Your task to perform on an android device: Go to calendar. Show me events next week Image 0: 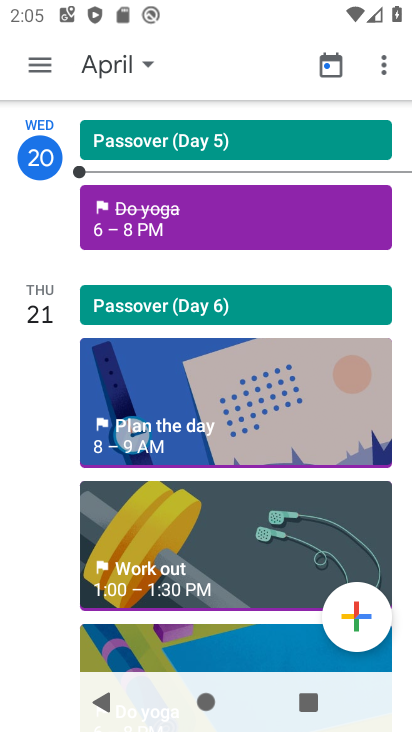
Step 0: press home button
Your task to perform on an android device: Go to calendar. Show me events next week Image 1: 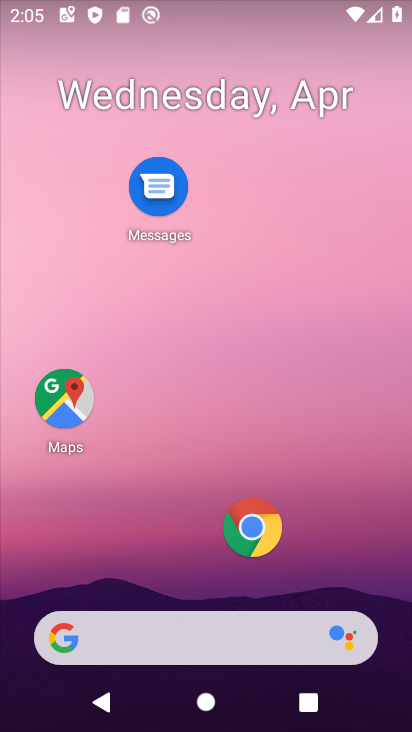
Step 1: drag from (160, 548) to (131, 146)
Your task to perform on an android device: Go to calendar. Show me events next week Image 2: 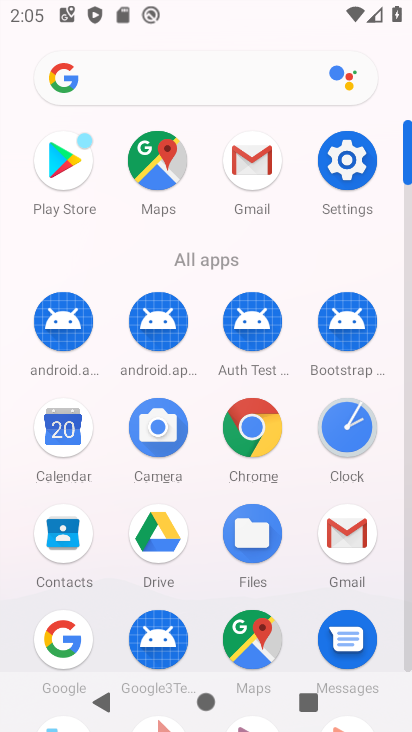
Step 2: click (58, 447)
Your task to perform on an android device: Go to calendar. Show me events next week Image 3: 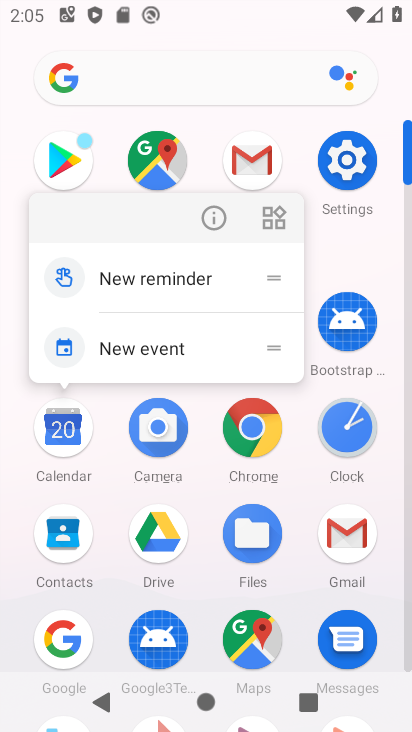
Step 3: click (60, 435)
Your task to perform on an android device: Go to calendar. Show me events next week Image 4: 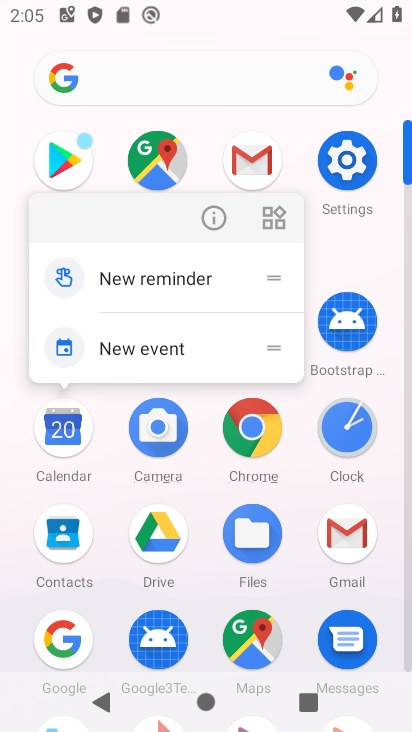
Step 4: click (64, 432)
Your task to perform on an android device: Go to calendar. Show me events next week Image 5: 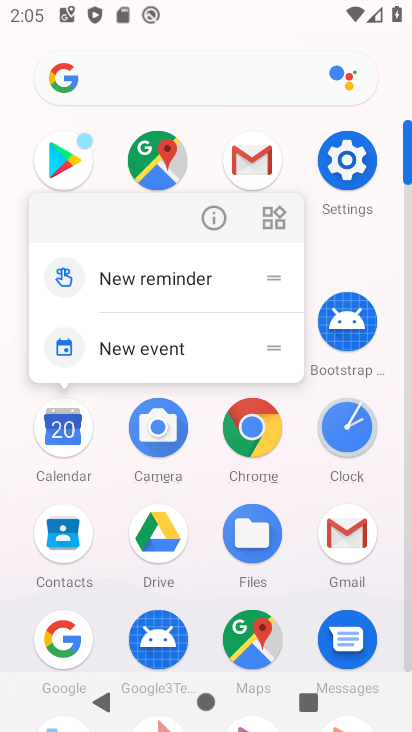
Step 5: click (65, 429)
Your task to perform on an android device: Go to calendar. Show me events next week Image 6: 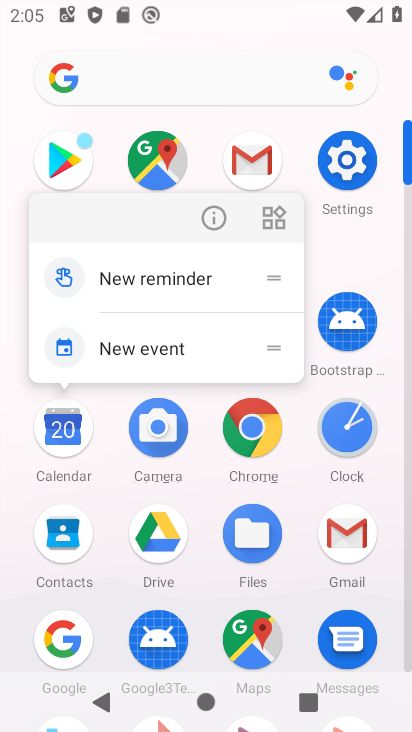
Step 6: click (204, 215)
Your task to perform on an android device: Go to calendar. Show me events next week Image 7: 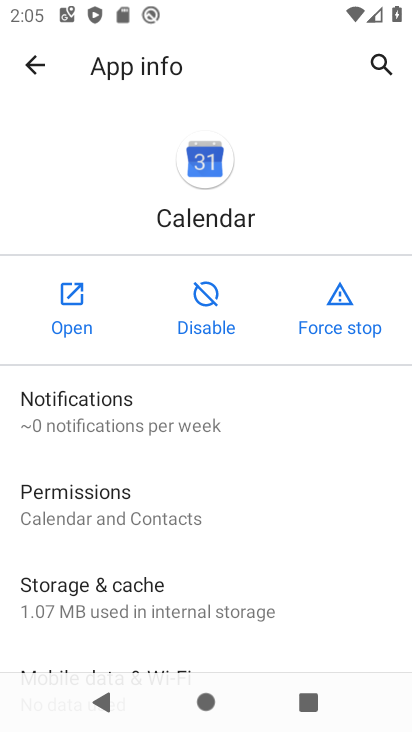
Step 7: click (78, 315)
Your task to perform on an android device: Go to calendar. Show me events next week Image 8: 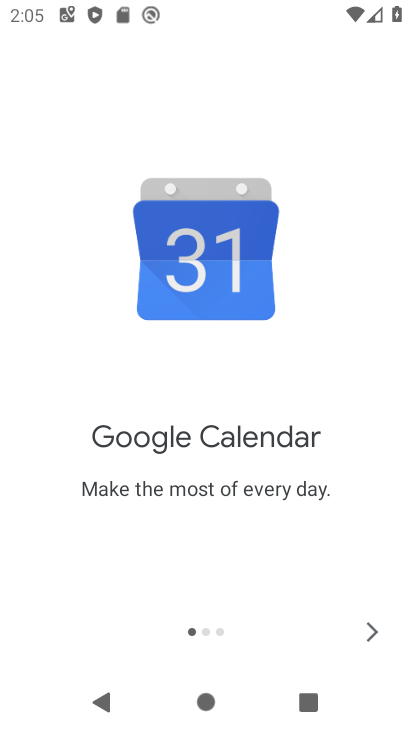
Step 8: click (367, 623)
Your task to perform on an android device: Go to calendar. Show me events next week Image 9: 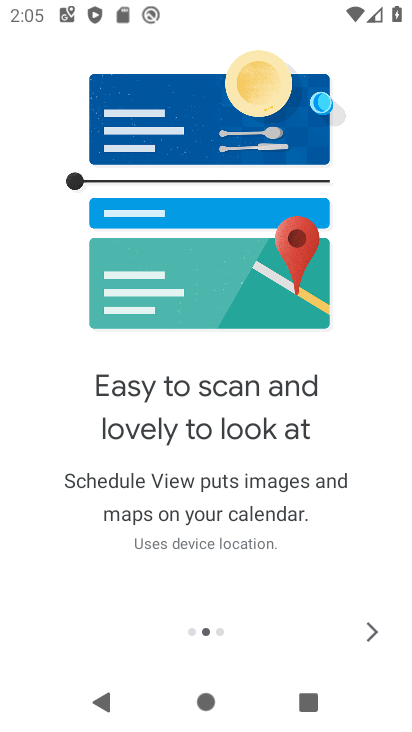
Step 9: click (371, 622)
Your task to perform on an android device: Go to calendar. Show me events next week Image 10: 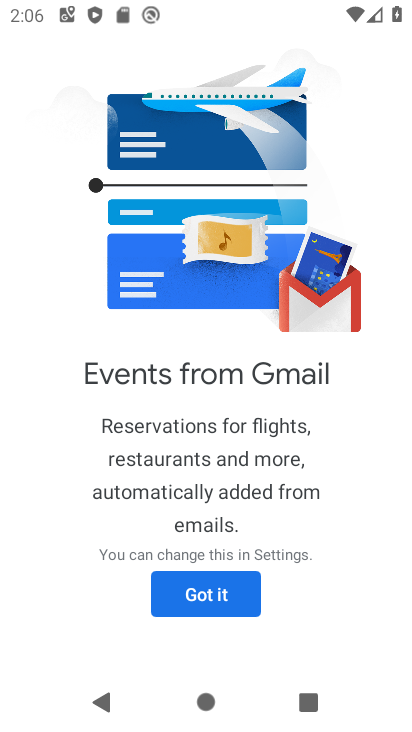
Step 10: click (222, 585)
Your task to perform on an android device: Go to calendar. Show me events next week Image 11: 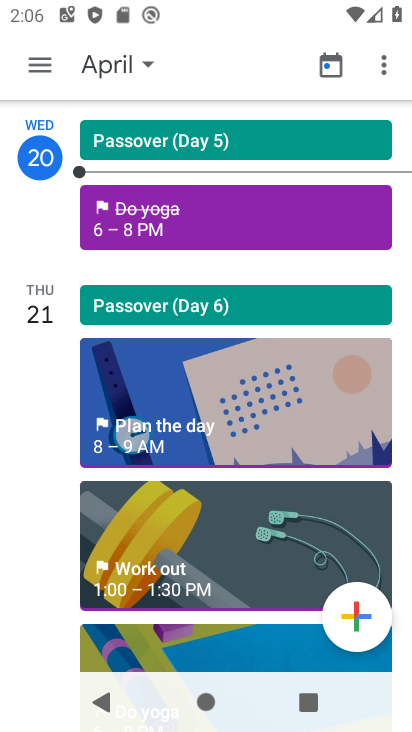
Step 11: click (136, 68)
Your task to perform on an android device: Go to calendar. Show me events next week Image 12: 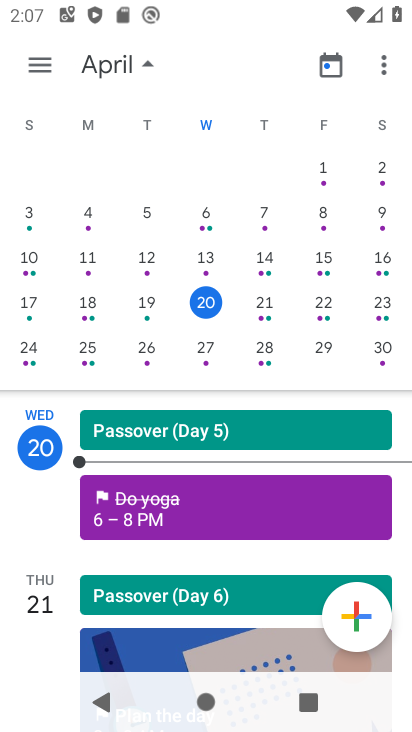
Step 12: click (129, 83)
Your task to perform on an android device: Go to calendar. Show me events next week Image 13: 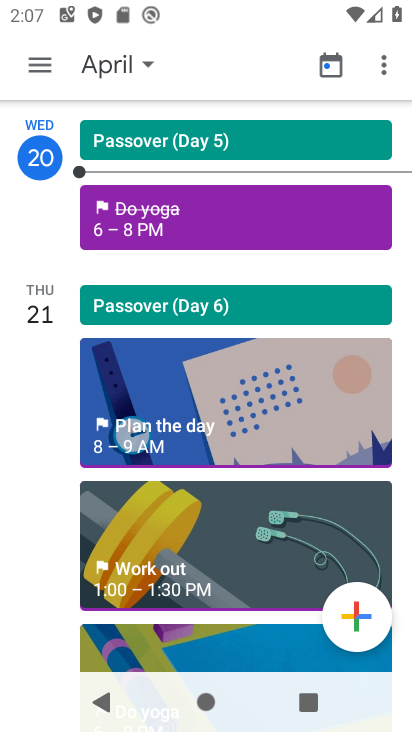
Step 13: click (157, 75)
Your task to perform on an android device: Go to calendar. Show me events next week Image 14: 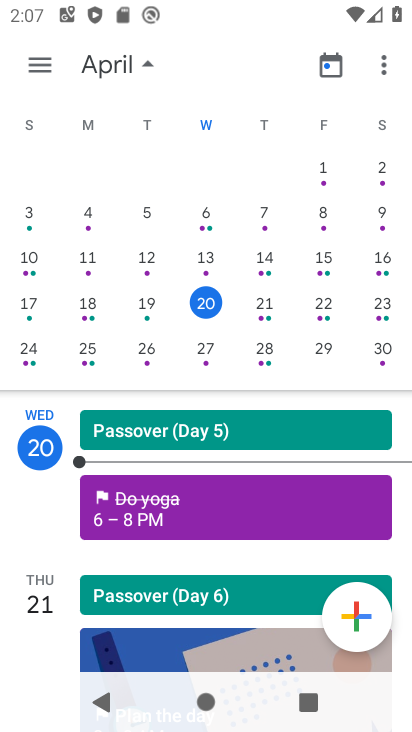
Step 14: drag from (393, 240) to (20, 210)
Your task to perform on an android device: Go to calendar. Show me events next week Image 15: 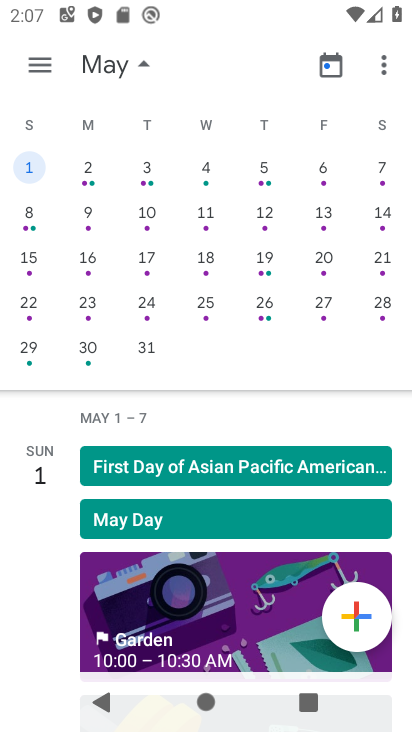
Step 15: click (36, 60)
Your task to perform on an android device: Go to calendar. Show me events next week Image 16: 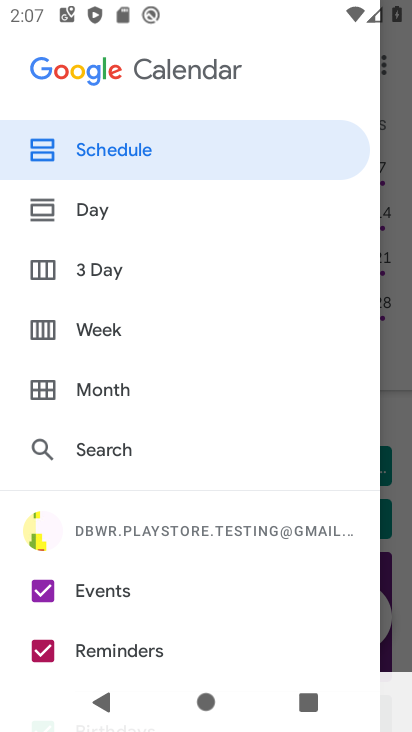
Step 16: click (40, 648)
Your task to perform on an android device: Go to calendar. Show me events next week Image 17: 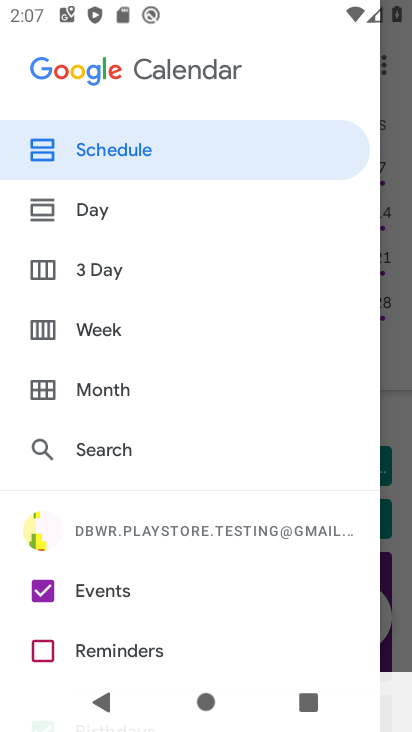
Step 17: click (217, 145)
Your task to perform on an android device: Go to calendar. Show me events next week Image 18: 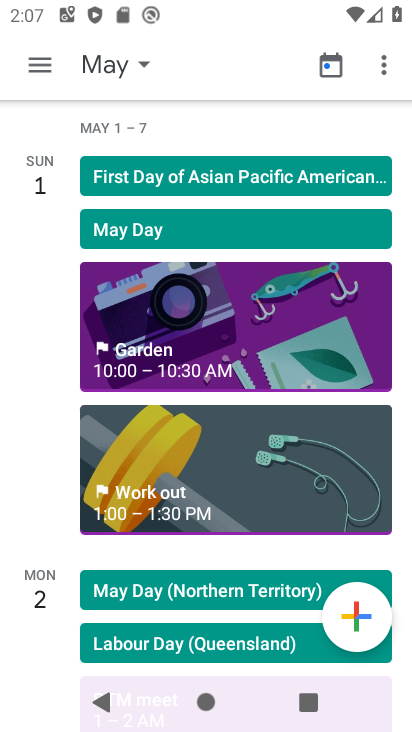
Step 18: click (119, 70)
Your task to perform on an android device: Go to calendar. Show me events next week Image 19: 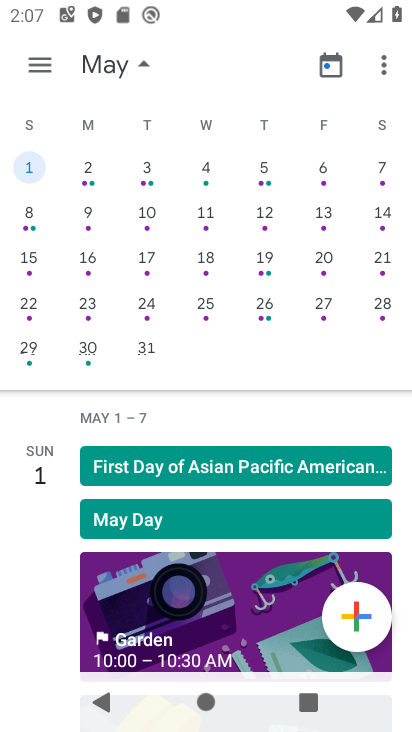
Step 19: click (31, 218)
Your task to perform on an android device: Go to calendar. Show me events next week Image 20: 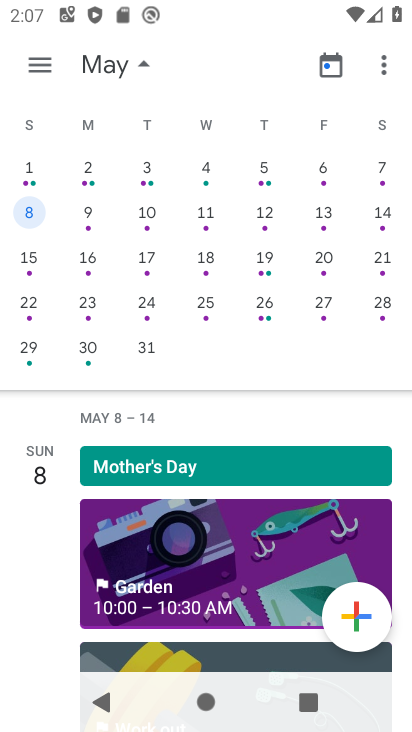
Step 20: click (91, 214)
Your task to perform on an android device: Go to calendar. Show me events next week Image 21: 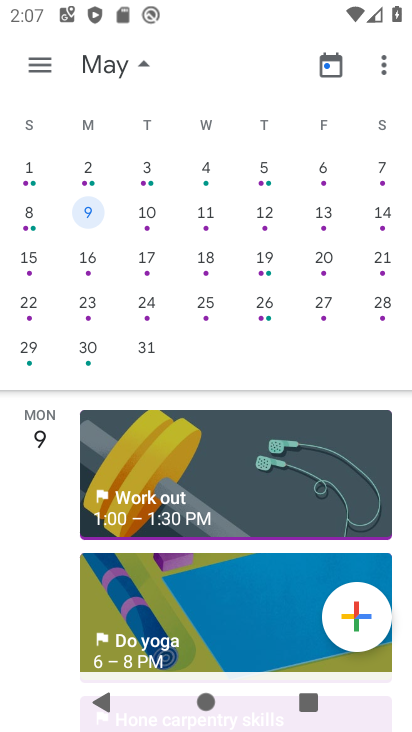
Step 21: click (147, 214)
Your task to perform on an android device: Go to calendar. Show me events next week Image 22: 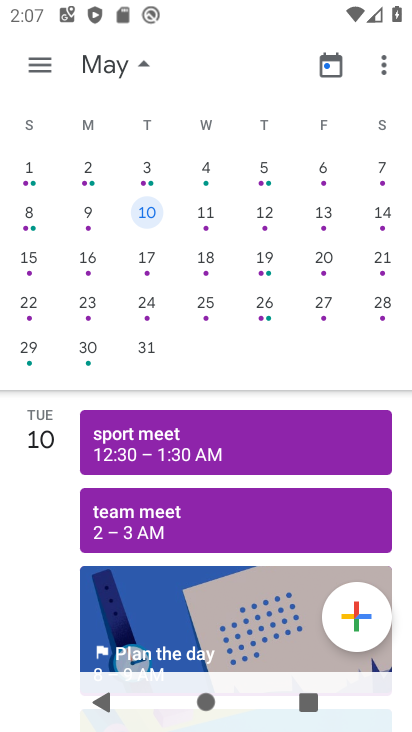
Step 22: click (200, 219)
Your task to perform on an android device: Go to calendar. Show me events next week Image 23: 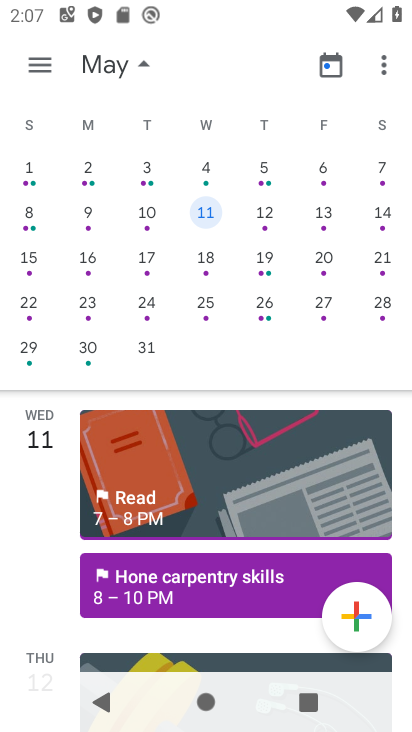
Step 23: click (264, 220)
Your task to perform on an android device: Go to calendar. Show me events next week Image 24: 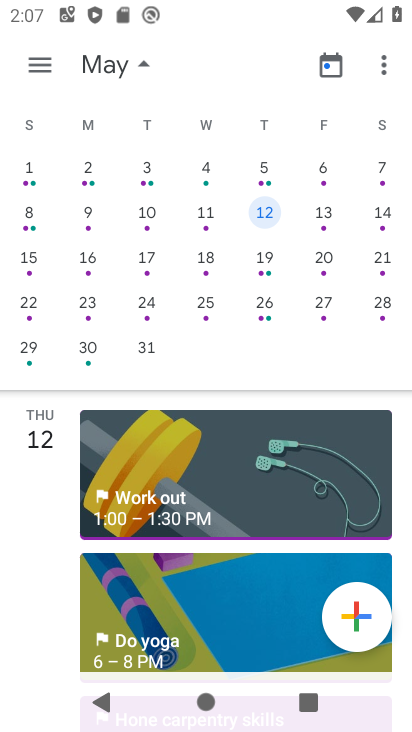
Step 24: click (322, 220)
Your task to perform on an android device: Go to calendar. Show me events next week Image 25: 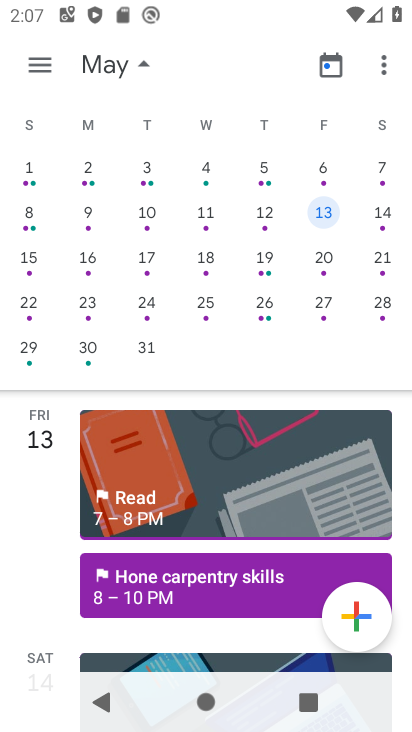
Step 25: click (385, 221)
Your task to perform on an android device: Go to calendar. Show me events next week Image 26: 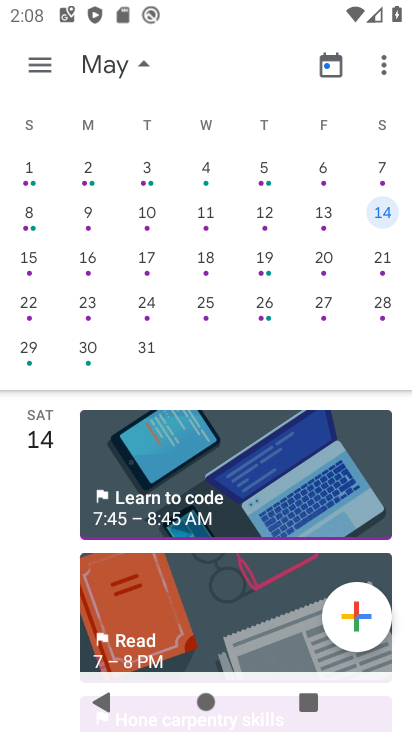
Step 26: task complete